Your task to perform on an android device: turn on data saver in the chrome app Image 0: 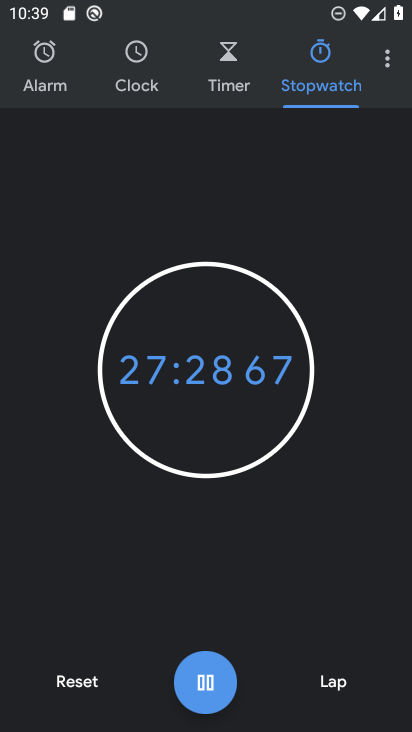
Step 0: press home button
Your task to perform on an android device: turn on data saver in the chrome app Image 1: 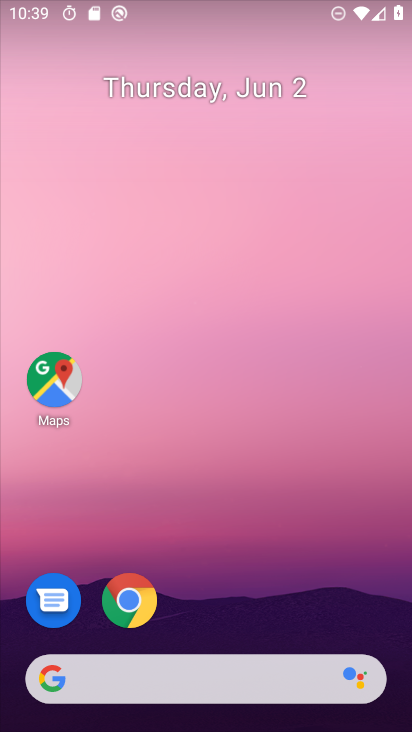
Step 1: drag from (319, 568) to (296, 13)
Your task to perform on an android device: turn on data saver in the chrome app Image 2: 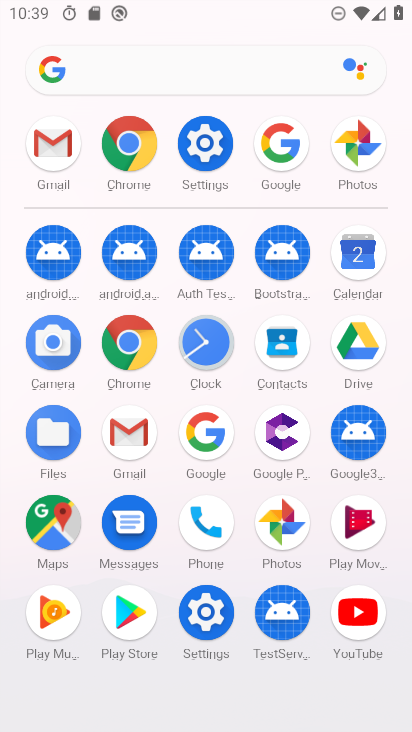
Step 2: click (127, 142)
Your task to perform on an android device: turn on data saver in the chrome app Image 3: 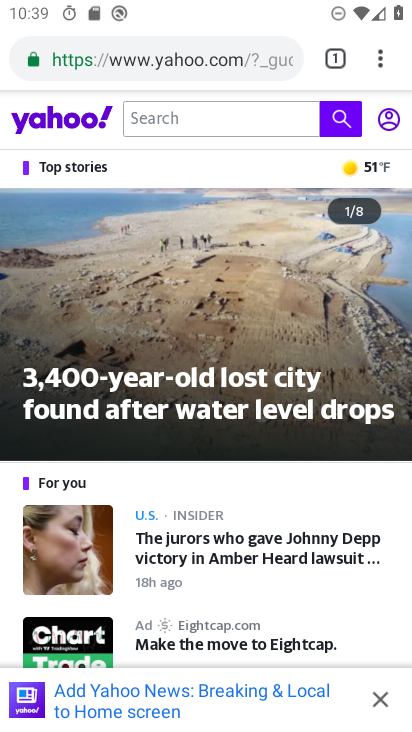
Step 3: click (375, 49)
Your task to perform on an android device: turn on data saver in the chrome app Image 4: 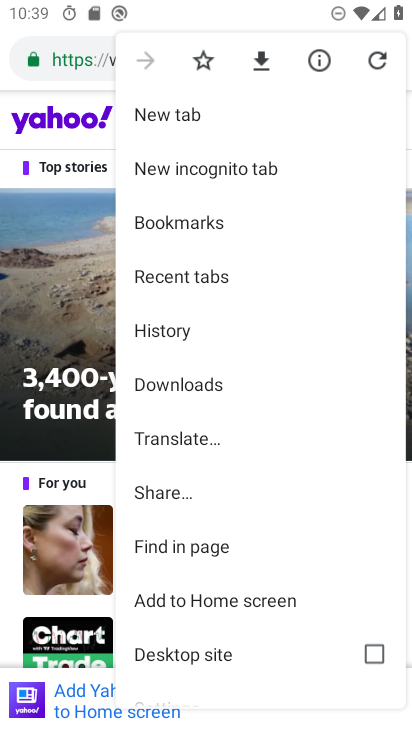
Step 4: drag from (265, 536) to (298, 153)
Your task to perform on an android device: turn on data saver in the chrome app Image 5: 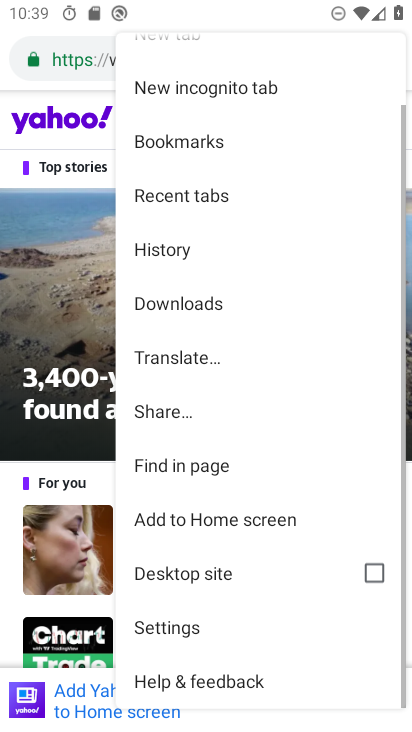
Step 5: click (180, 633)
Your task to perform on an android device: turn on data saver in the chrome app Image 6: 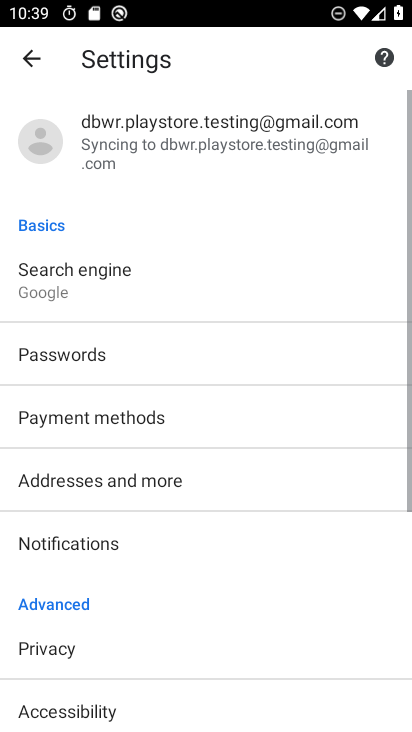
Step 6: drag from (196, 619) to (193, 192)
Your task to perform on an android device: turn on data saver in the chrome app Image 7: 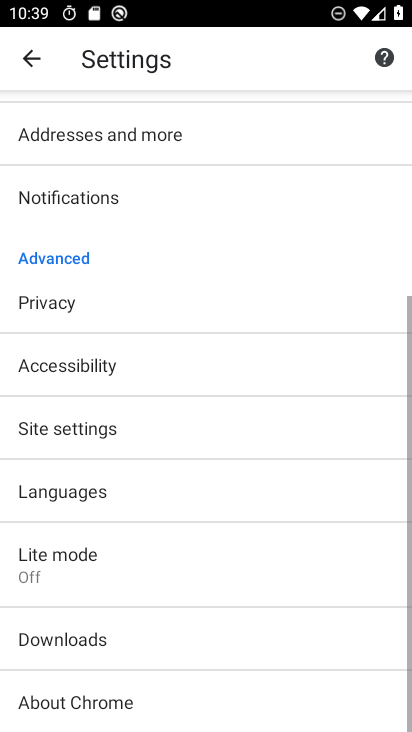
Step 7: click (98, 562)
Your task to perform on an android device: turn on data saver in the chrome app Image 8: 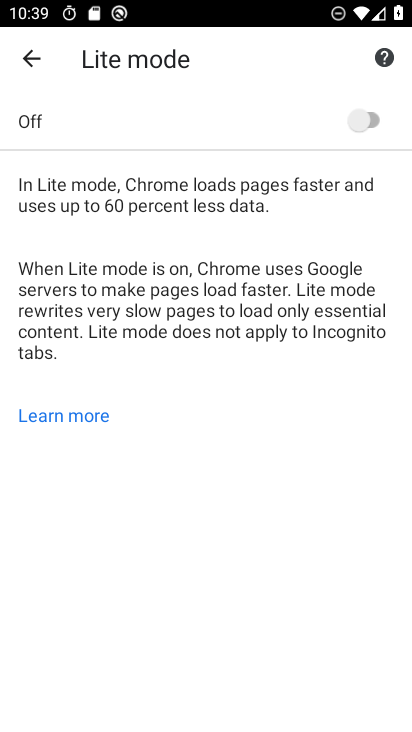
Step 8: click (367, 103)
Your task to perform on an android device: turn on data saver in the chrome app Image 9: 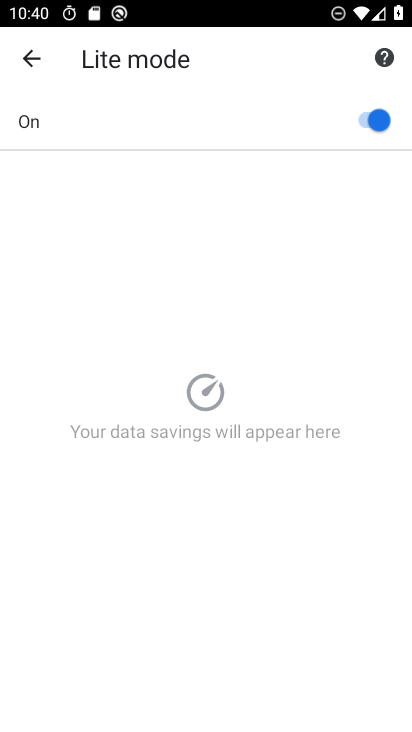
Step 9: task complete